Your task to perform on an android device: delete browsing data in the chrome app Image 0: 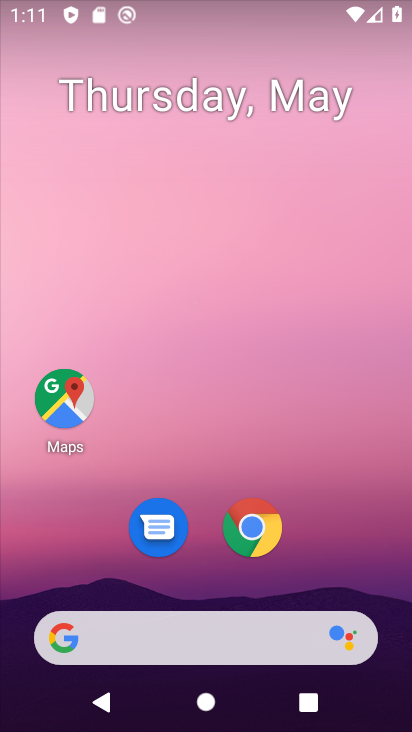
Step 0: click (268, 519)
Your task to perform on an android device: delete browsing data in the chrome app Image 1: 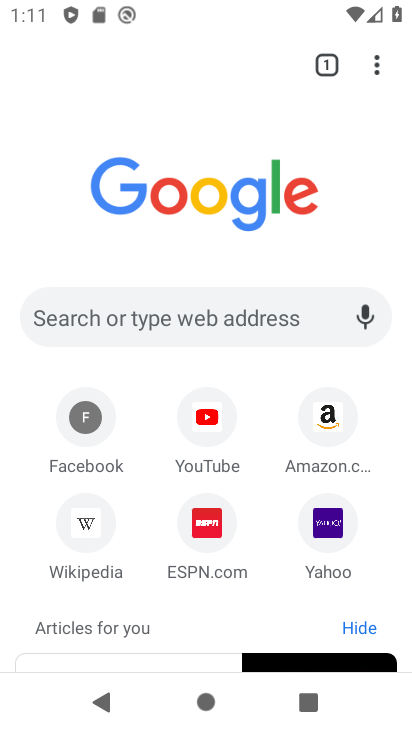
Step 1: drag from (376, 59) to (173, 555)
Your task to perform on an android device: delete browsing data in the chrome app Image 2: 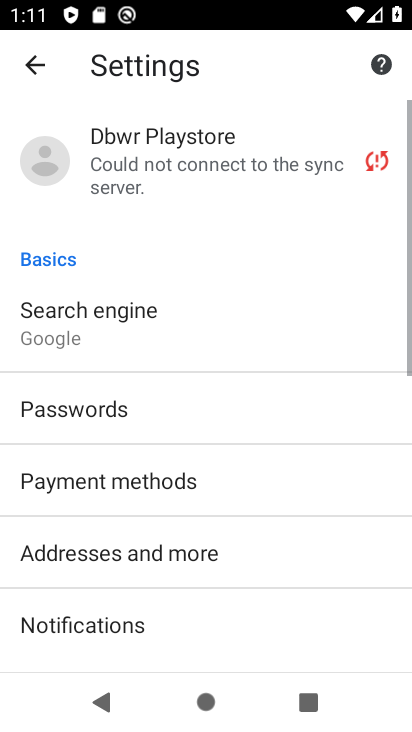
Step 2: drag from (167, 563) to (156, 114)
Your task to perform on an android device: delete browsing data in the chrome app Image 3: 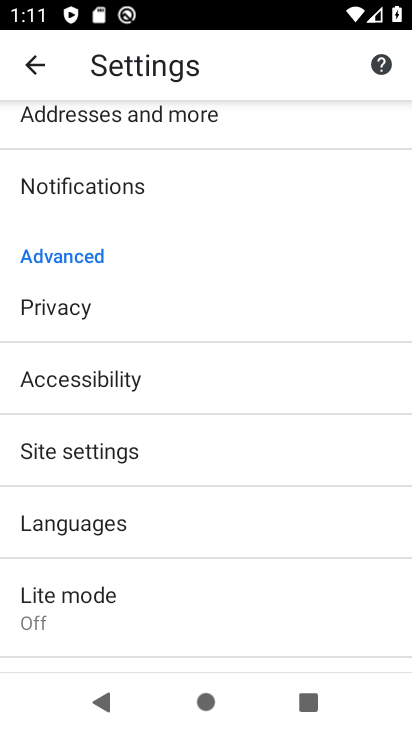
Step 3: click (96, 330)
Your task to perform on an android device: delete browsing data in the chrome app Image 4: 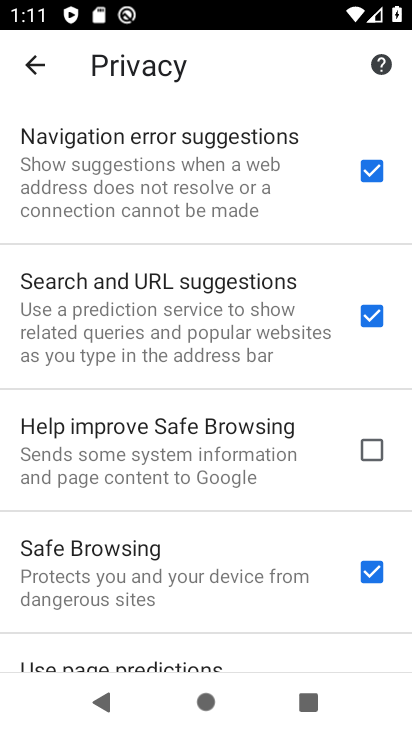
Step 4: drag from (245, 655) to (216, 119)
Your task to perform on an android device: delete browsing data in the chrome app Image 5: 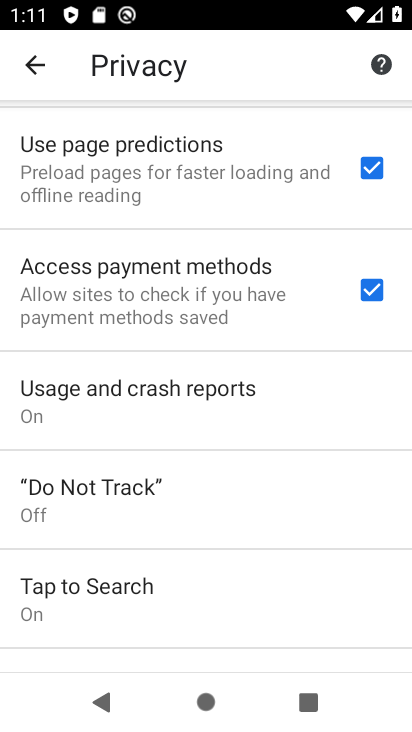
Step 5: drag from (263, 539) to (223, 143)
Your task to perform on an android device: delete browsing data in the chrome app Image 6: 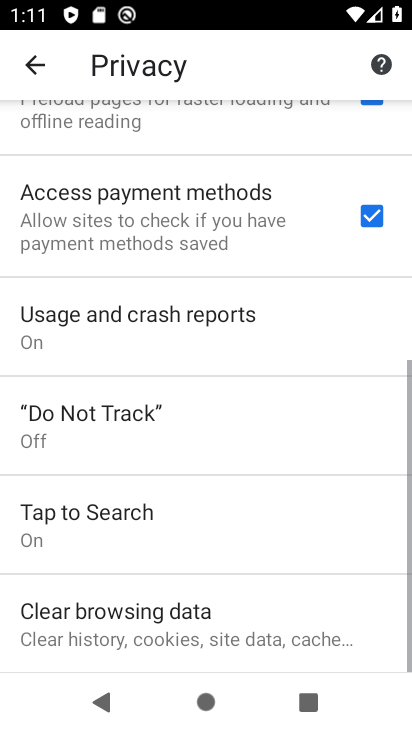
Step 6: click (282, 616)
Your task to perform on an android device: delete browsing data in the chrome app Image 7: 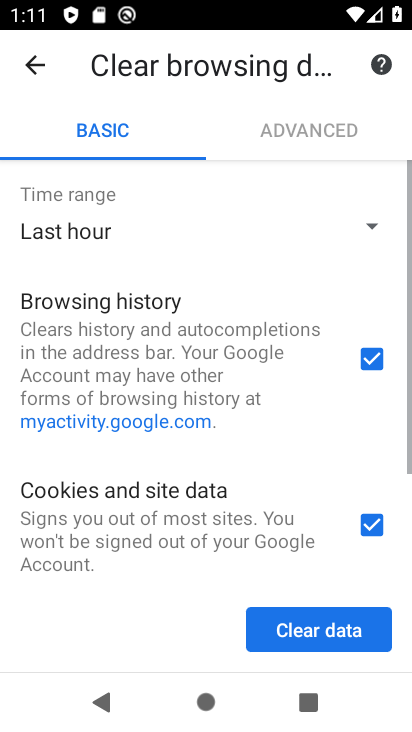
Step 7: click (284, 621)
Your task to perform on an android device: delete browsing data in the chrome app Image 8: 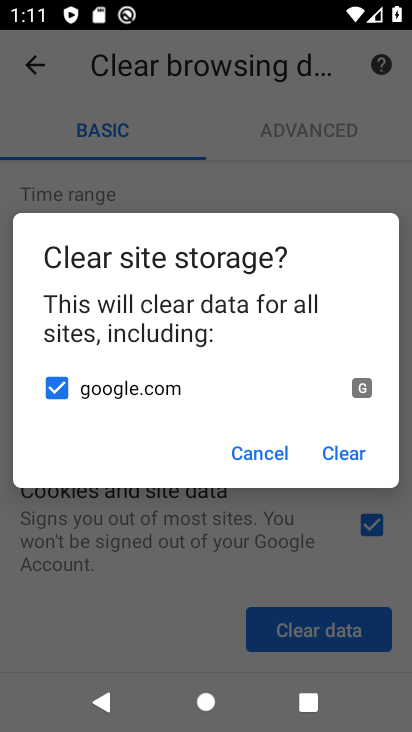
Step 8: click (339, 460)
Your task to perform on an android device: delete browsing data in the chrome app Image 9: 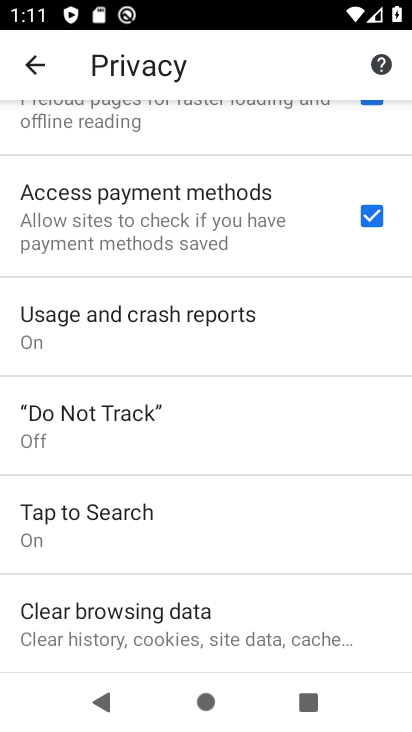
Step 9: task complete